Your task to perform on an android device: Check the weather Image 0: 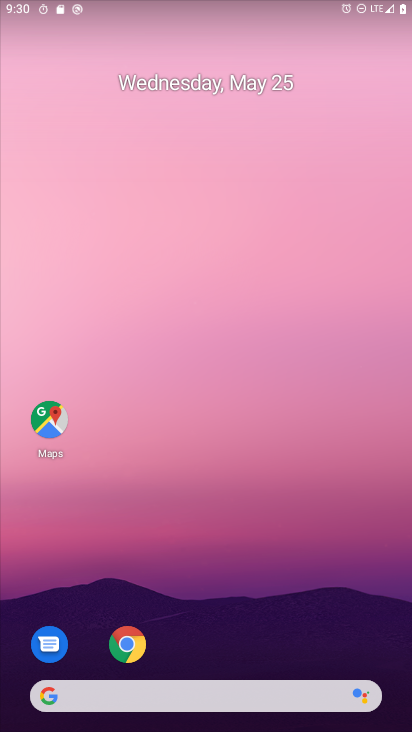
Step 0: drag from (353, 624) to (272, 65)
Your task to perform on an android device: Check the weather Image 1: 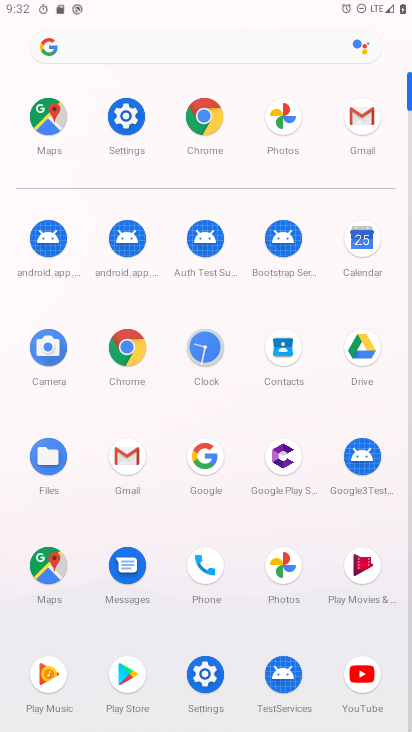
Step 1: click (205, 469)
Your task to perform on an android device: Check the weather Image 2: 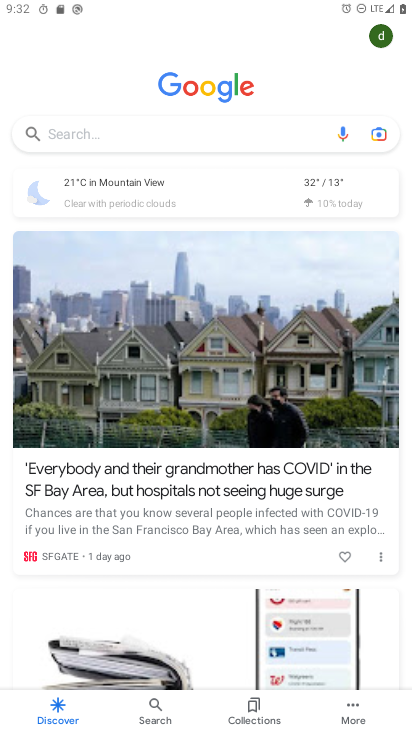
Step 2: click (145, 137)
Your task to perform on an android device: Check the weather Image 3: 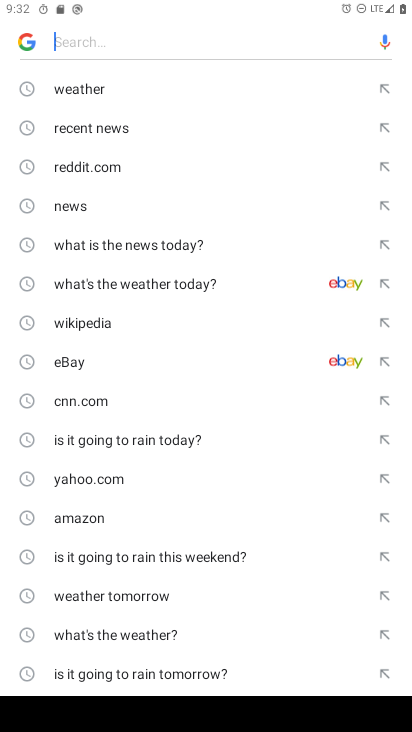
Step 3: click (102, 83)
Your task to perform on an android device: Check the weather Image 4: 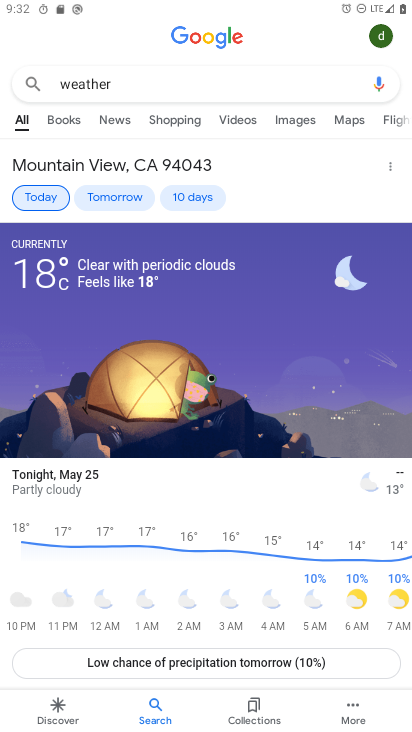
Step 4: task complete